Your task to perform on an android device: turn on the 24-hour format for clock Image 0: 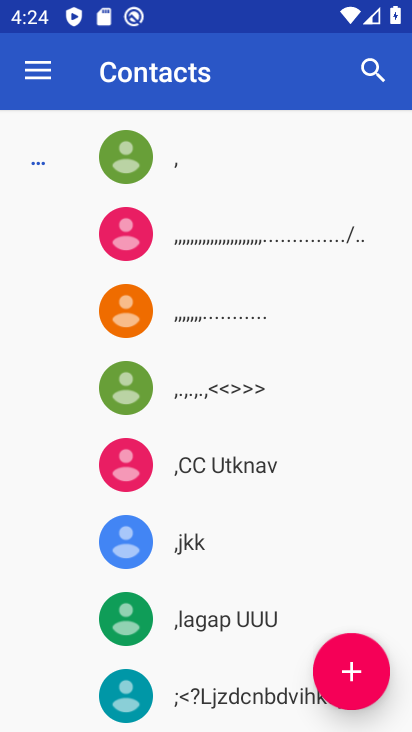
Step 0: press home button
Your task to perform on an android device: turn on the 24-hour format for clock Image 1: 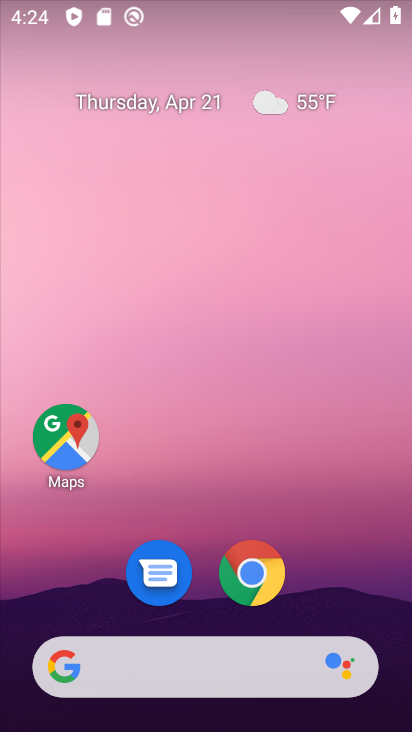
Step 1: drag from (383, 618) to (237, 118)
Your task to perform on an android device: turn on the 24-hour format for clock Image 2: 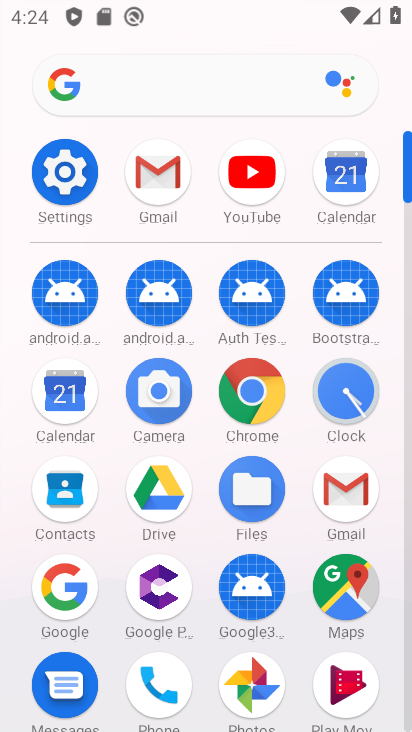
Step 2: click (408, 703)
Your task to perform on an android device: turn on the 24-hour format for clock Image 3: 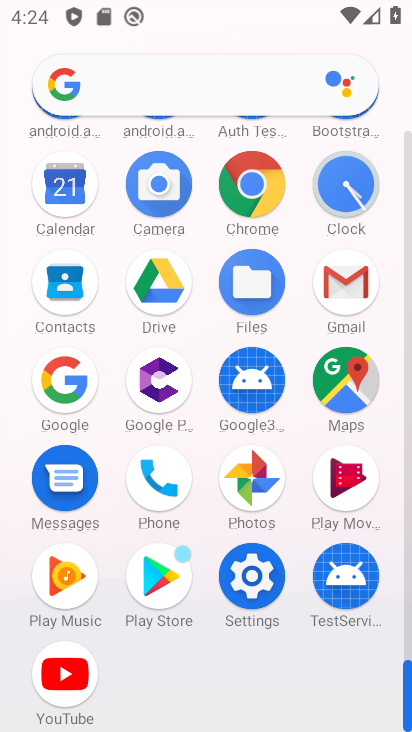
Step 3: click (343, 183)
Your task to perform on an android device: turn on the 24-hour format for clock Image 4: 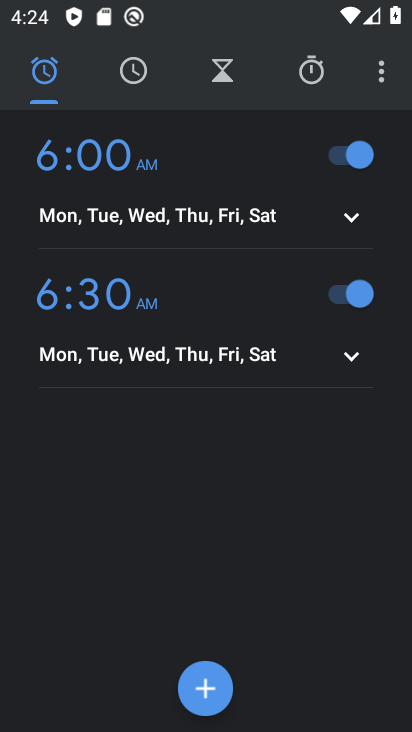
Step 4: click (381, 77)
Your task to perform on an android device: turn on the 24-hour format for clock Image 5: 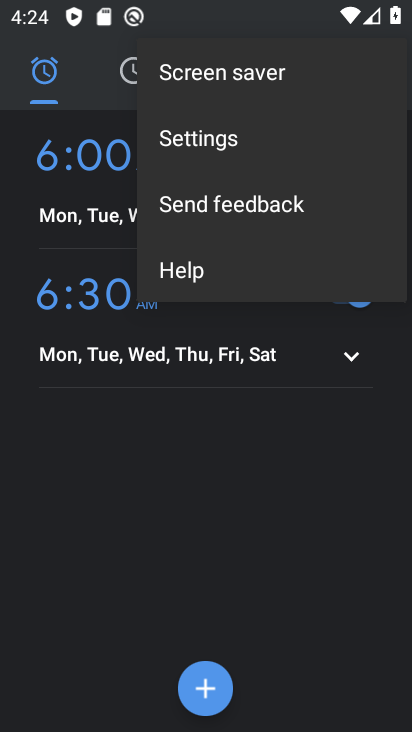
Step 5: click (186, 142)
Your task to perform on an android device: turn on the 24-hour format for clock Image 6: 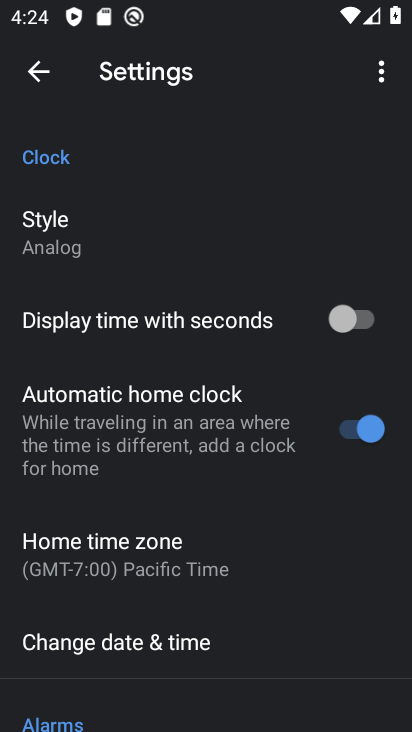
Step 6: click (153, 636)
Your task to perform on an android device: turn on the 24-hour format for clock Image 7: 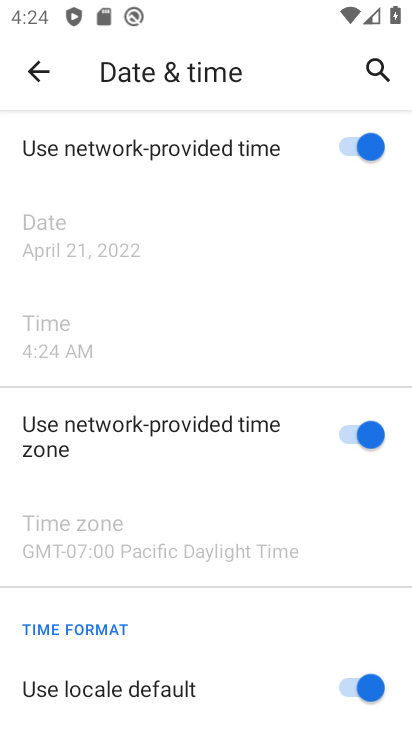
Step 7: drag from (288, 621) to (315, 309)
Your task to perform on an android device: turn on the 24-hour format for clock Image 8: 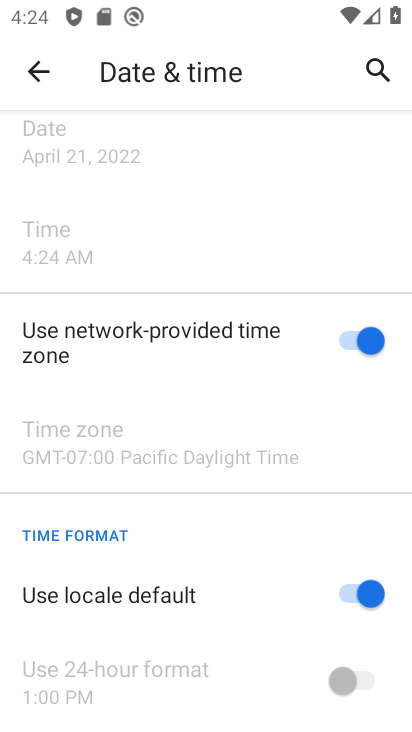
Step 8: click (345, 593)
Your task to perform on an android device: turn on the 24-hour format for clock Image 9: 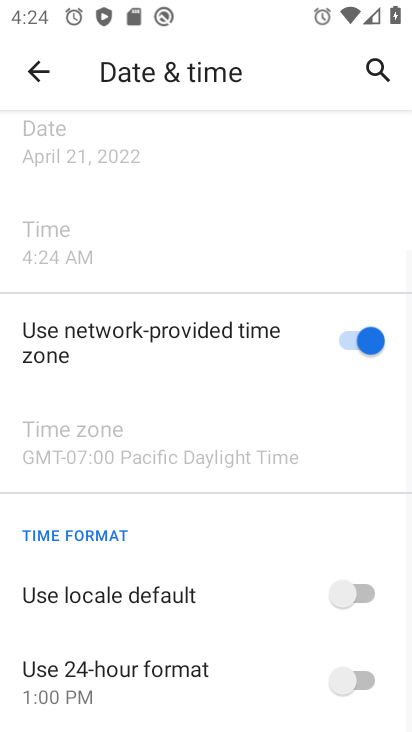
Step 9: click (365, 681)
Your task to perform on an android device: turn on the 24-hour format for clock Image 10: 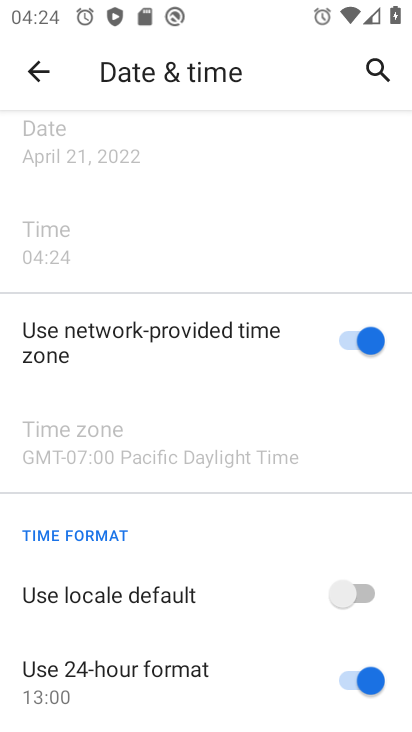
Step 10: task complete